Your task to perform on an android device: turn off airplane mode Image 0: 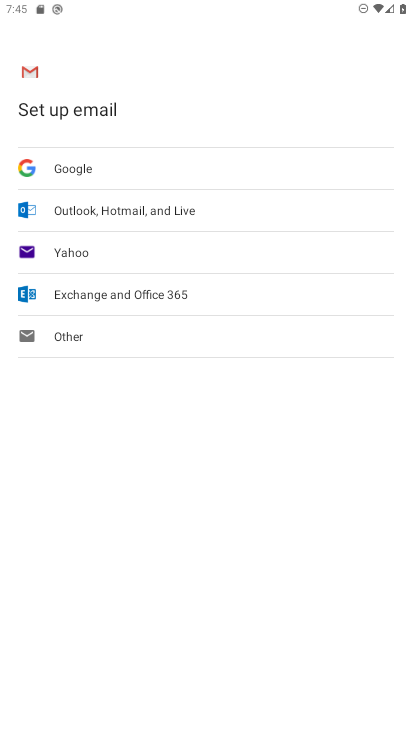
Step 0: press home button
Your task to perform on an android device: turn off airplane mode Image 1: 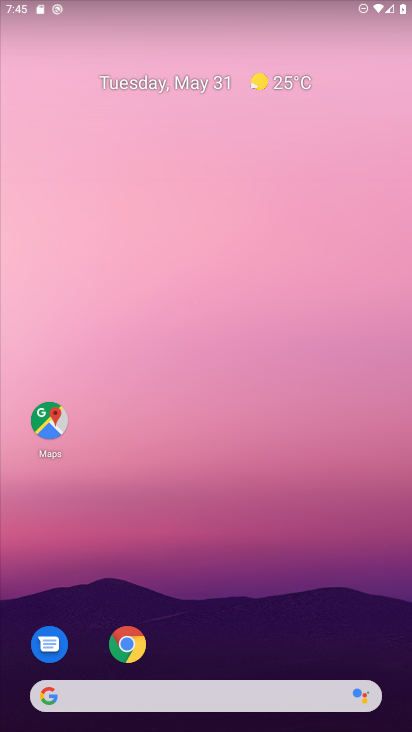
Step 1: drag from (243, 722) to (217, 137)
Your task to perform on an android device: turn off airplane mode Image 2: 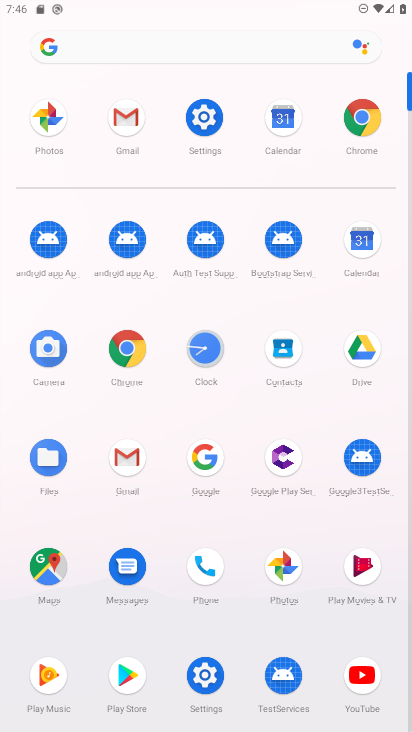
Step 2: click (207, 111)
Your task to perform on an android device: turn off airplane mode Image 3: 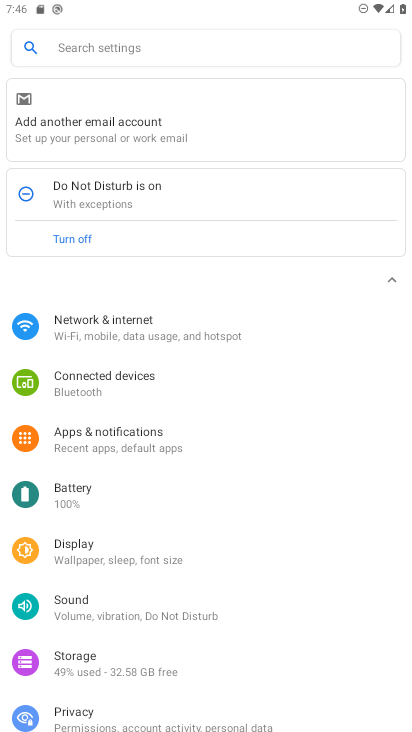
Step 3: click (237, 234)
Your task to perform on an android device: turn off airplane mode Image 4: 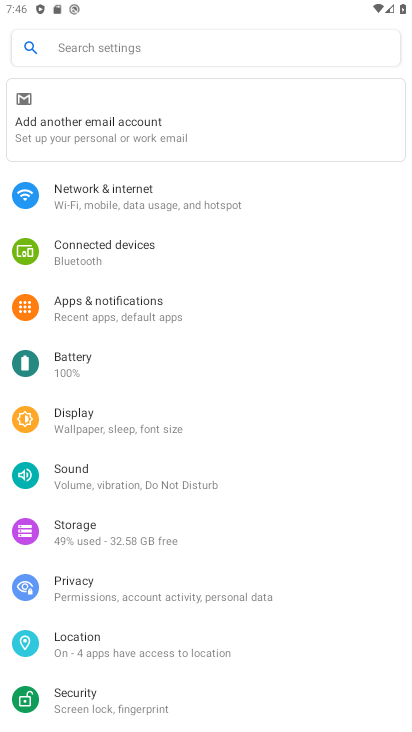
Step 4: click (174, 201)
Your task to perform on an android device: turn off airplane mode Image 5: 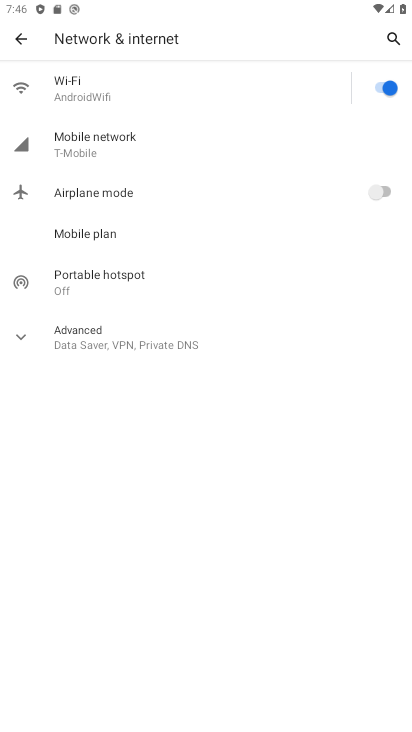
Step 5: click (381, 189)
Your task to perform on an android device: turn off airplane mode Image 6: 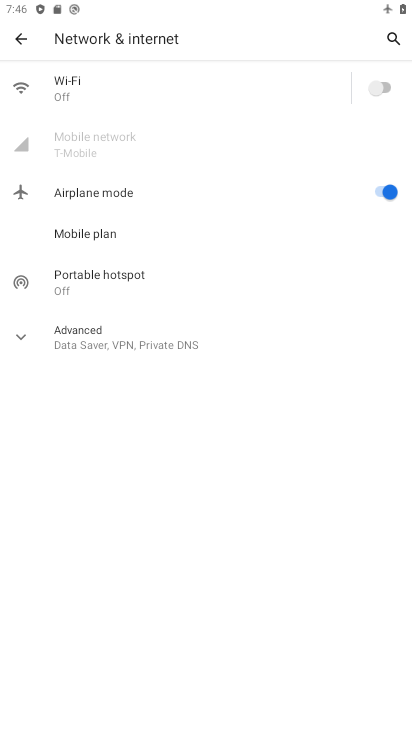
Step 6: click (384, 184)
Your task to perform on an android device: turn off airplane mode Image 7: 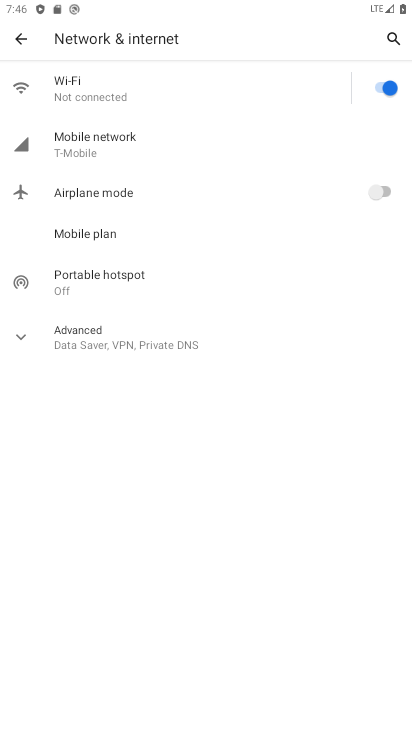
Step 7: task complete